Your task to perform on an android device: allow notifications from all sites in the chrome app Image 0: 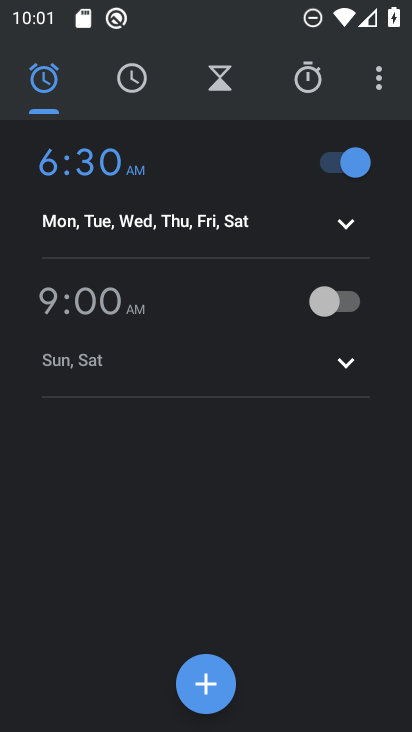
Step 0: press home button
Your task to perform on an android device: allow notifications from all sites in the chrome app Image 1: 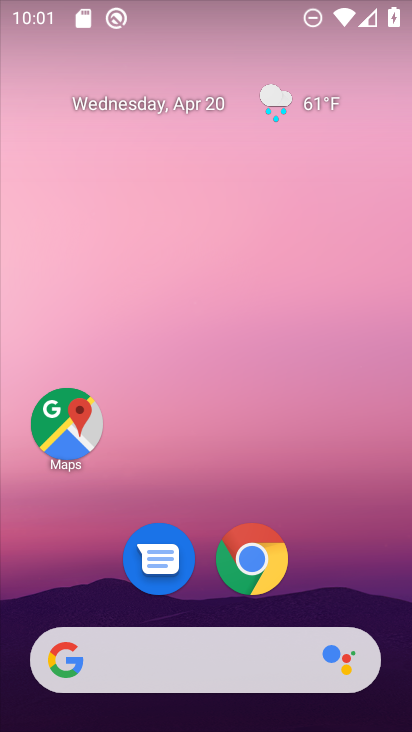
Step 1: click (249, 556)
Your task to perform on an android device: allow notifications from all sites in the chrome app Image 2: 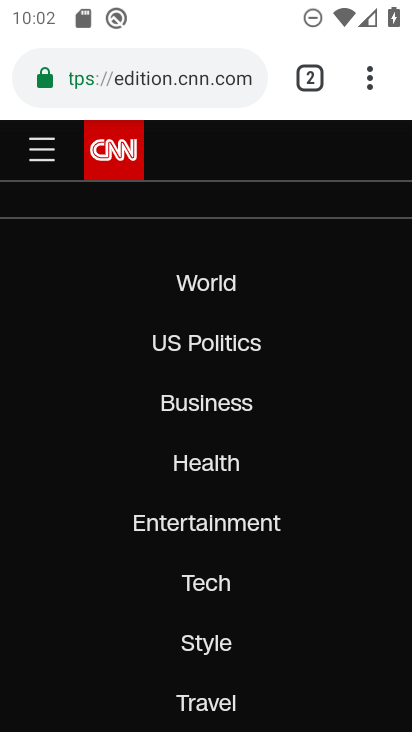
Step 2: click (369, 75)
Your task to perform on an android device: allow notifications from all sites in the chrome app Image 3: 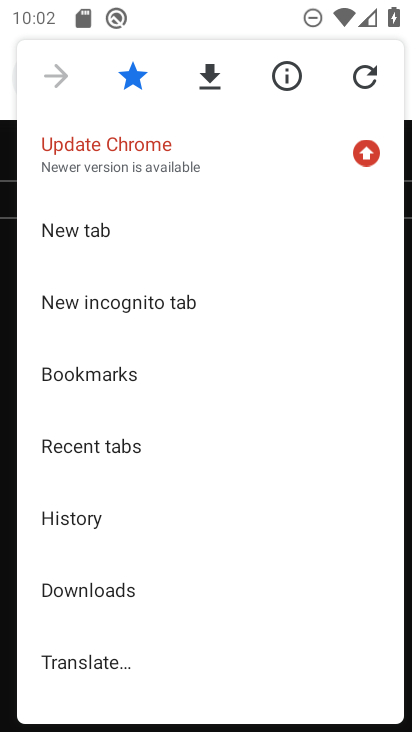
Step 3: drag from (196, 621) to (215, 389)
Your task to perform on an android device: allow notifications from all sites in the chrome app Image 4: 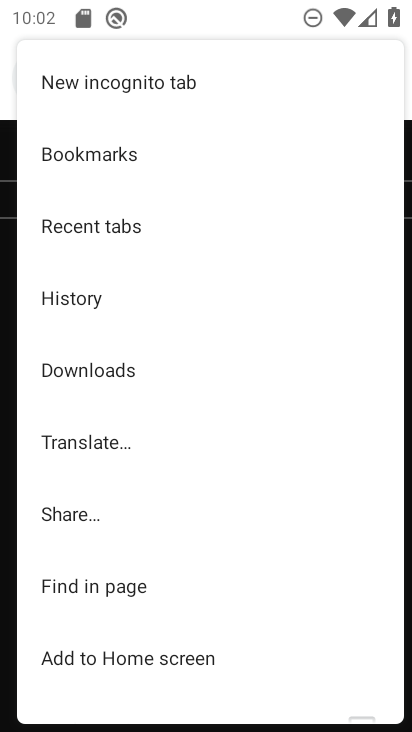
Step 4: drag from (225, 637) to (189, 404)
Your task to perform on an android device: allow notifications from all sites in the chrome app Image 5: 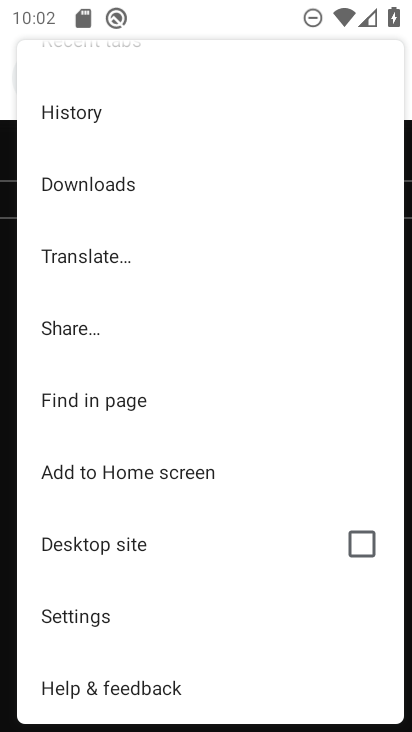
Step 5: click (64, 619)
Your task to perform on an android device: allow notifications from all sites in the chrome app Image 6: 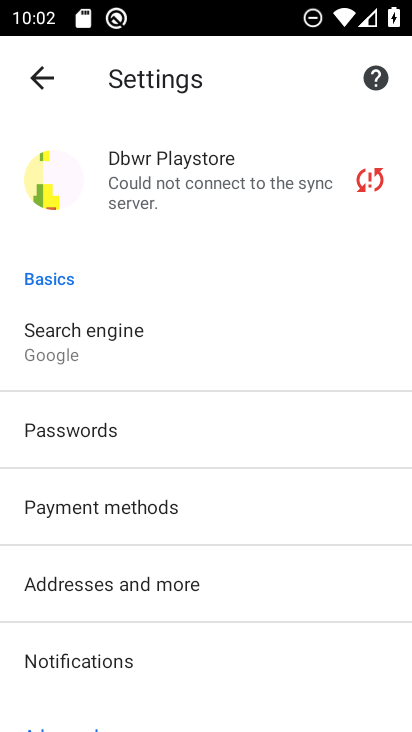
Step 6: drag from (240, 635) to (246, 438)
Your task to perform on an android device: allow notifications from all sites in the chrome app Image 7: 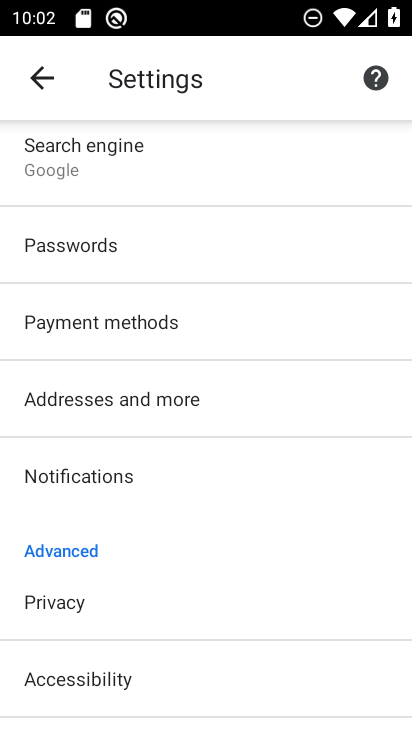
Step 7: drag from (191, 628) to (223, 257)
Your task to perform on an android device: allow notifications from all sites in the chrome app Image 8: 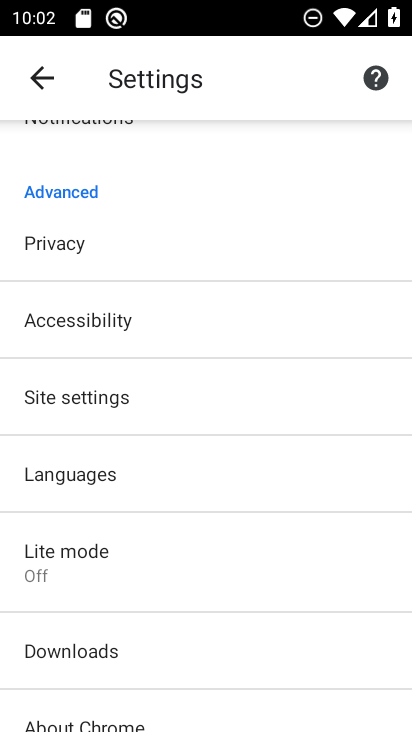
Step 8: drag from (181, 228) to (178, 313)
Your task to perform on an android device: allow notifications from all sites in the chrome app Image 9: 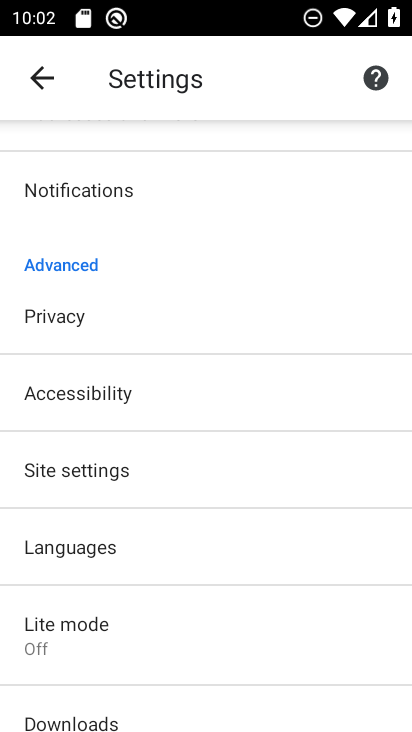
Step 9: click (68, 486)
Your task to perform on an android device: allow notifications from all sites in the chrome app Image 10: 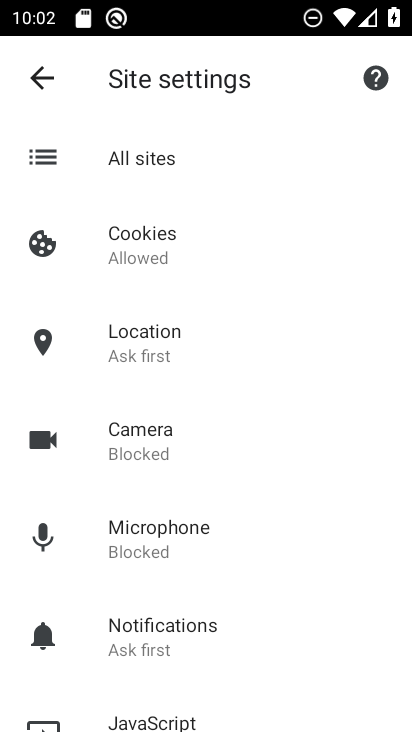
Step 10: drag from (227, 586) to (235, 451)
Your task to perform on an android device: allow notifications from all sites in the chrome app Image 11: 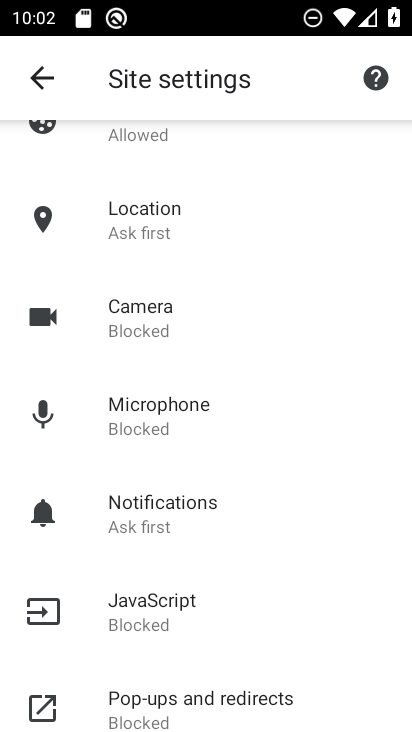
Step 11: click (161, 512)
Your task to perform on an android device: allow notifications from all sites in the chrome app Image 12: 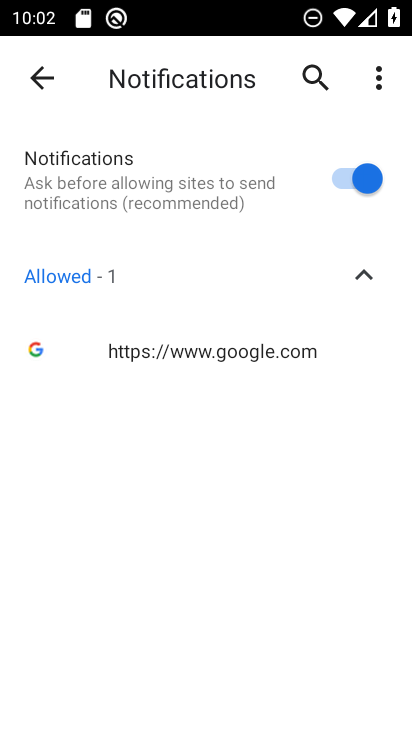
Step 12: task complete